Your task to perform on an android device: turn off sleep mode Image 0: 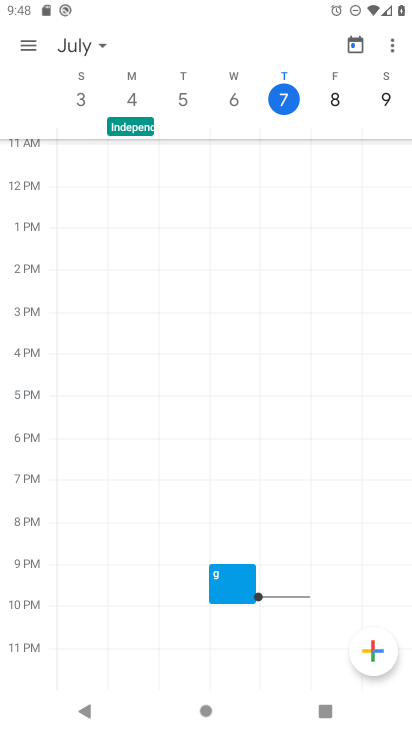
Step 0: press home button
Your task to perform on an android device: turn off sleep mode Image 1: 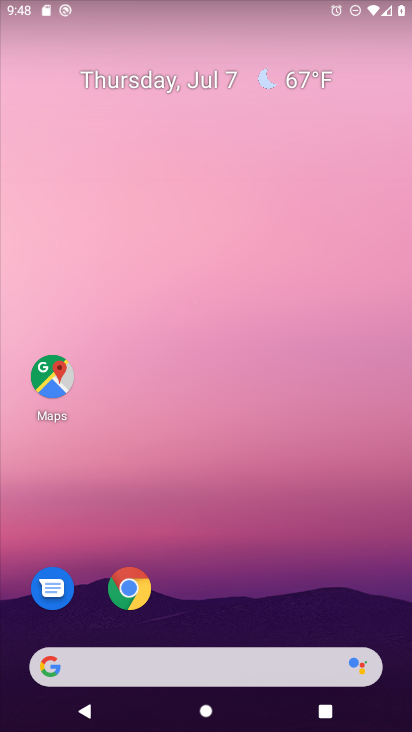
Step 1: drag from (214, 628) to (160, 200)
Your task to perform on an android device: turn off sleep mode Image 2: 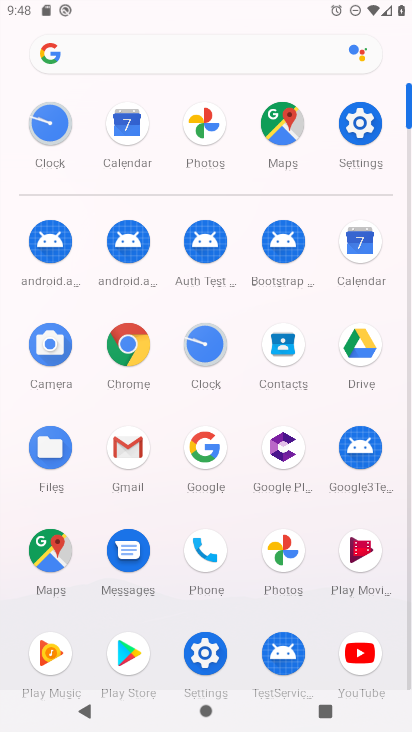
Step 2: click (360, 125)
Your task to perform on an android device: turn off sleep mode Image 3: 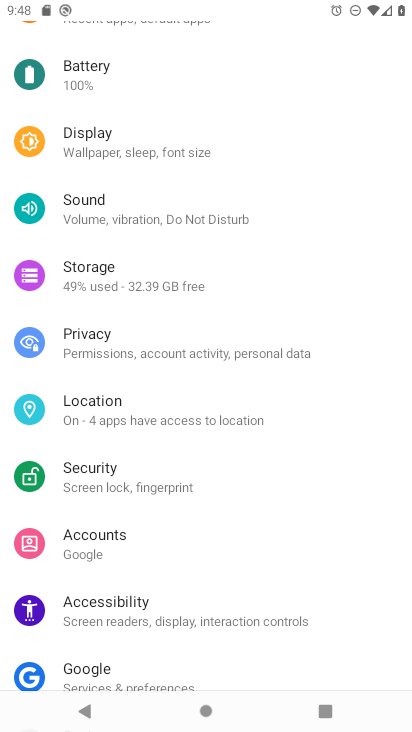
Step 3: drag from (128, 397) to (185, 284)
Your task to perform on an android device: turn off sleep mode Image 4: 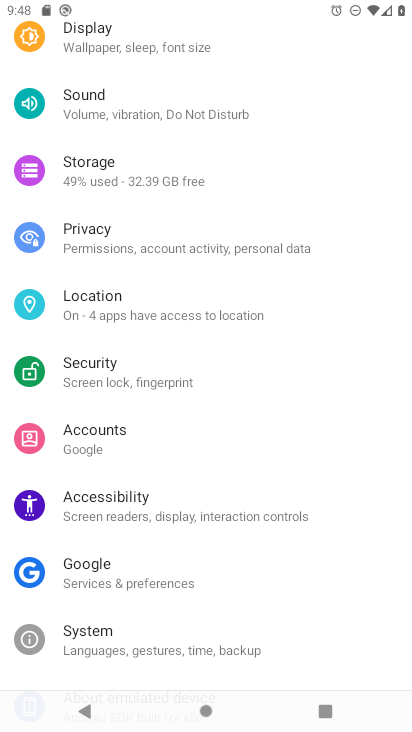
Step 4: drag from (165, 299) to (162, 397)
Your task to perform on an android device: turn off sleep mode Image 5: 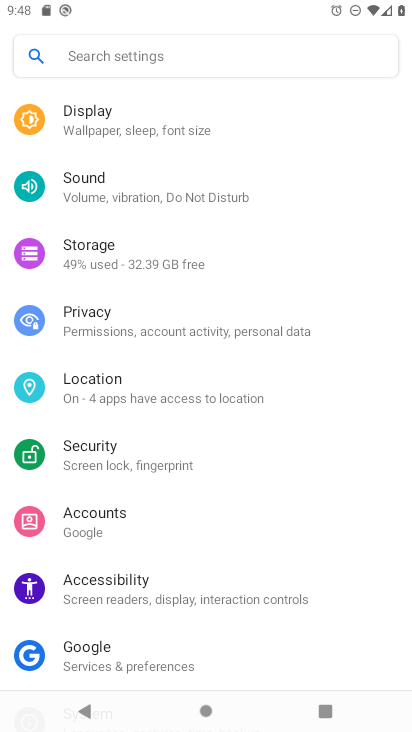
Step 5: click (191, 136)
Your task to perform on an android device: turn off sleep mode Image 6: 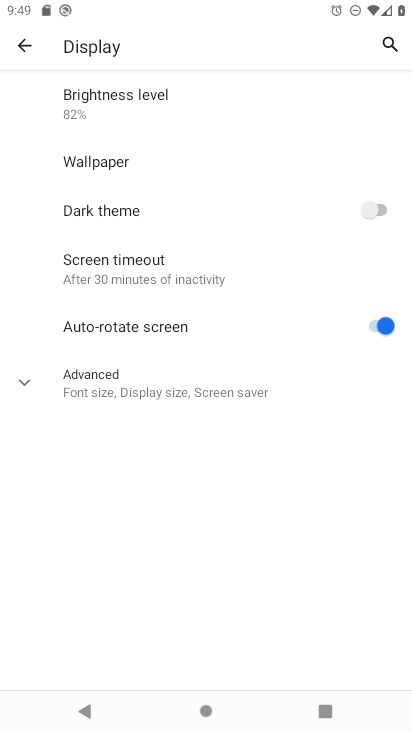
Step 6: click (180, 401)
Your task to perform on an android device: turn off sleep mode Image 7: 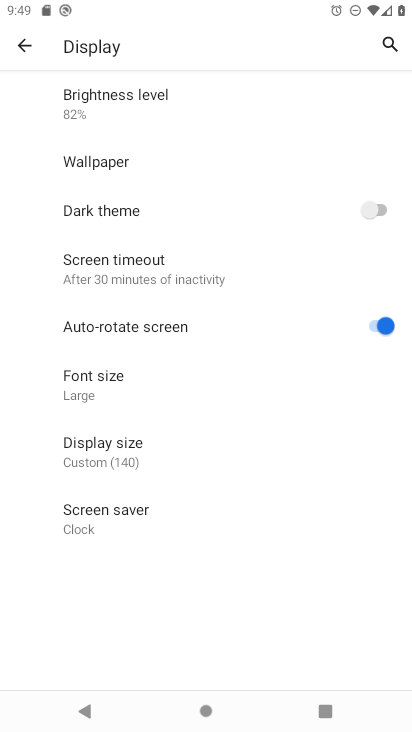
Step 7: task complete